Your task to perform on an android device: Show me the alarms in the clock app Image 0: 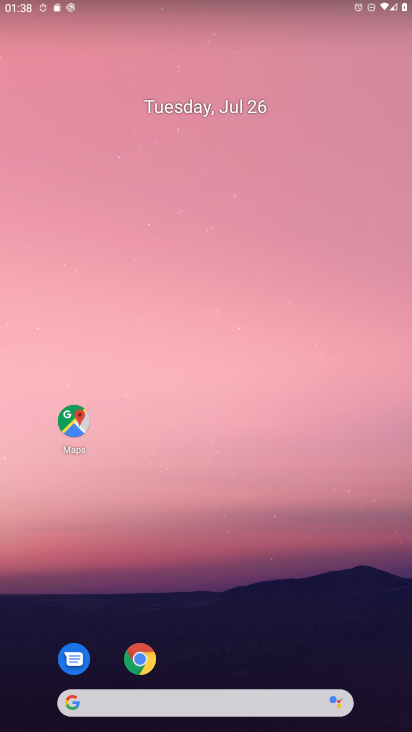
Step 0: press home button
Your task to perform on an android device: Show me the alarms in the clock app Image 1: 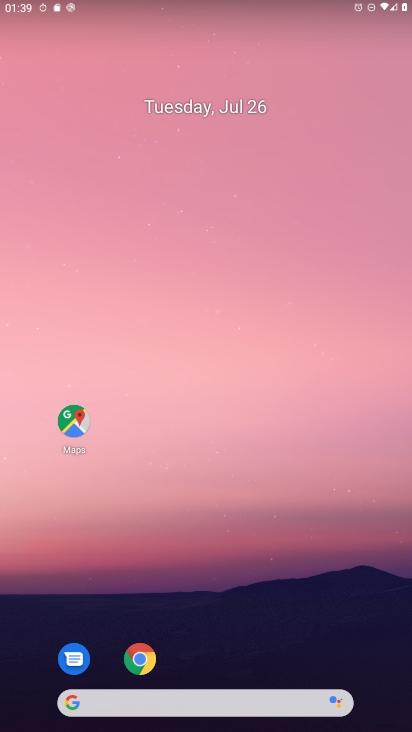
Step 1: drag from (291, 668) to (281, 67)
Your task to perform on an android device: Show me the alarms in the clock app Image 2: 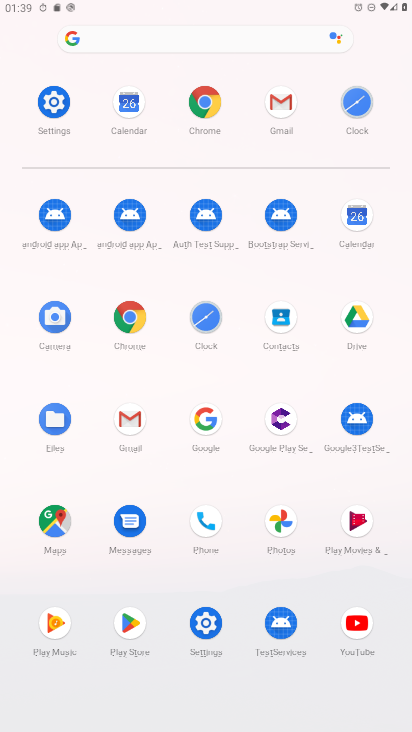
Step 2: click (204, 312)
Your task to perform on an android device: Show me the alarms in the clock app Image 3: 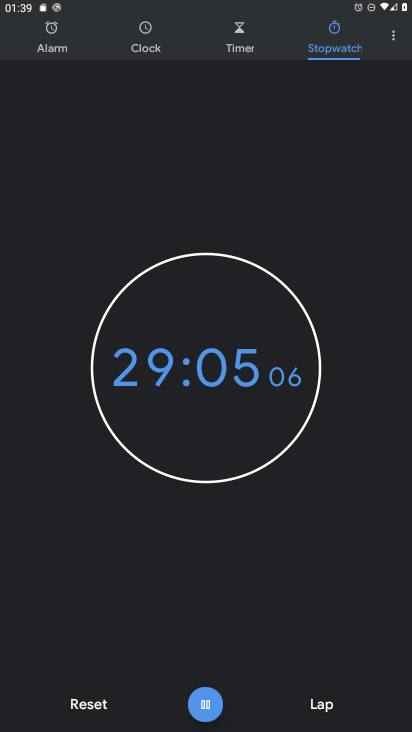
Step 3: click (24, 51)
Your task to perform on an android device: Show me the alarms in the clock app Image 4: 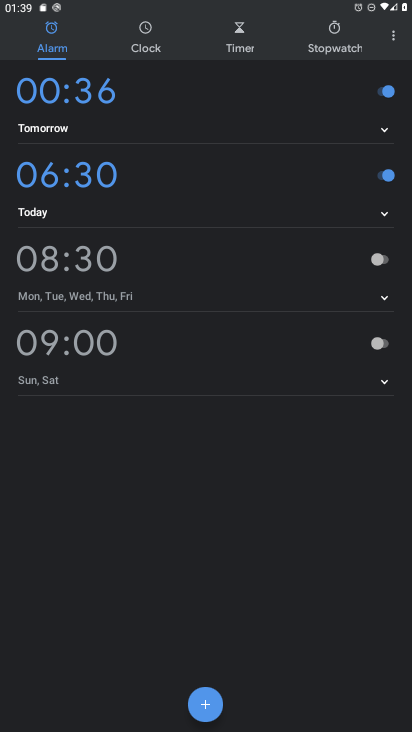
Step 4: task complete